Your task to perform on an android device: Go to Maps Image 0: 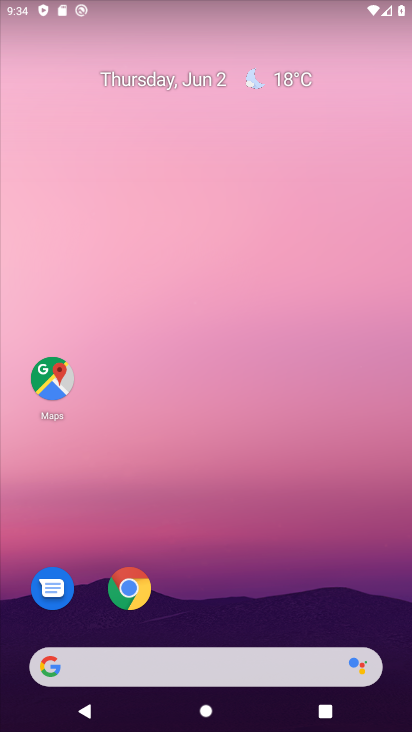
Step 0: drag from (229, 718) to (201, 207)
Your task to perform on an android device: Go to Maps Image 1: 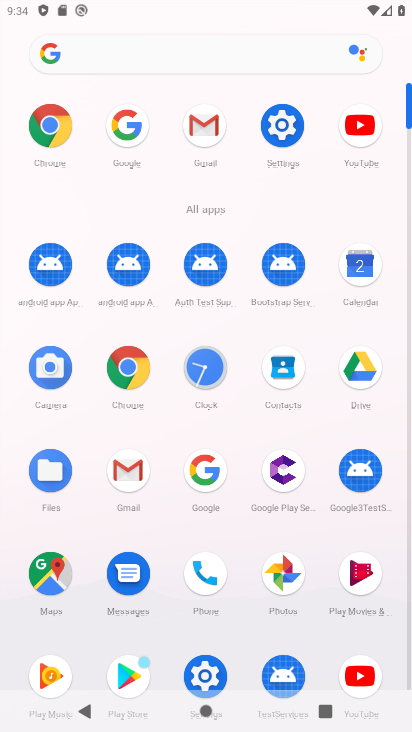
Step 1: click (58, 582)
Your task to perform on an android device: Go to Maps Image 2: 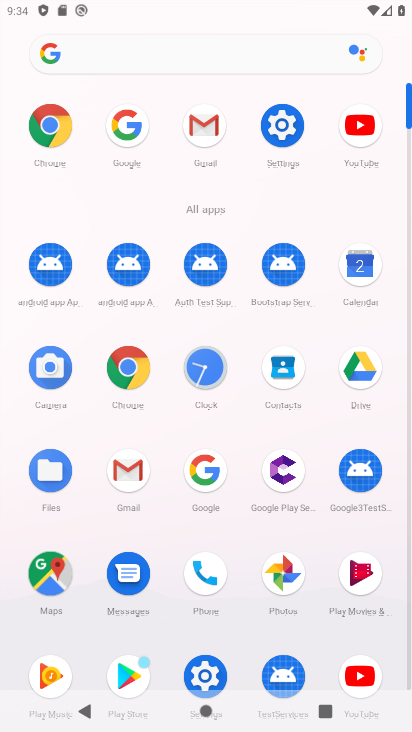
Step 2: click (47, 577)
Your task to perform on an android device: Go to Maps Image 3: 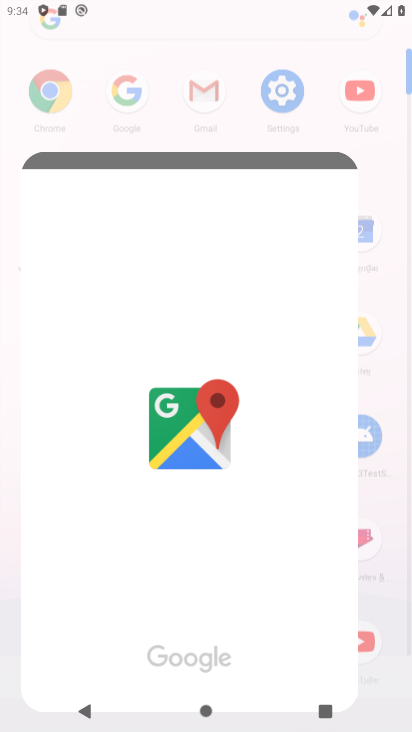
Step 3: click (45, 577)
Your task to perform on an android device: Go to Maps Image 4: 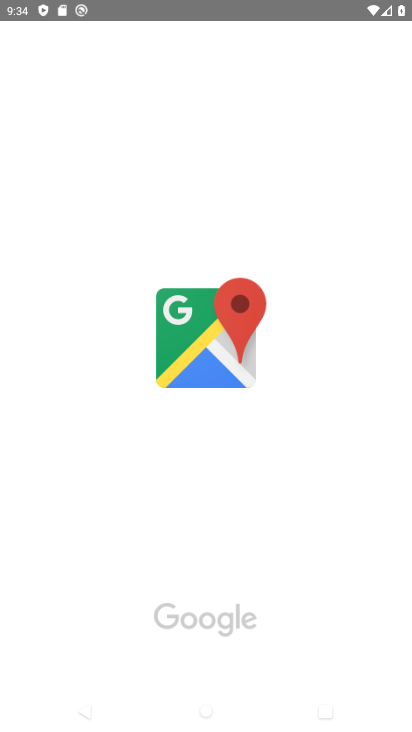
Step 4: click (45, 577)
Your task to perform on an android device: Go to Maps Image 5: 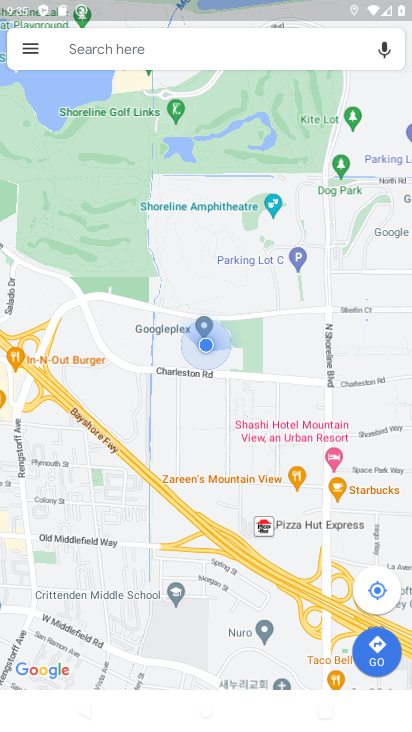
Step 5: task complete